Your task to perform on an android device: Open sound settings Image 0: 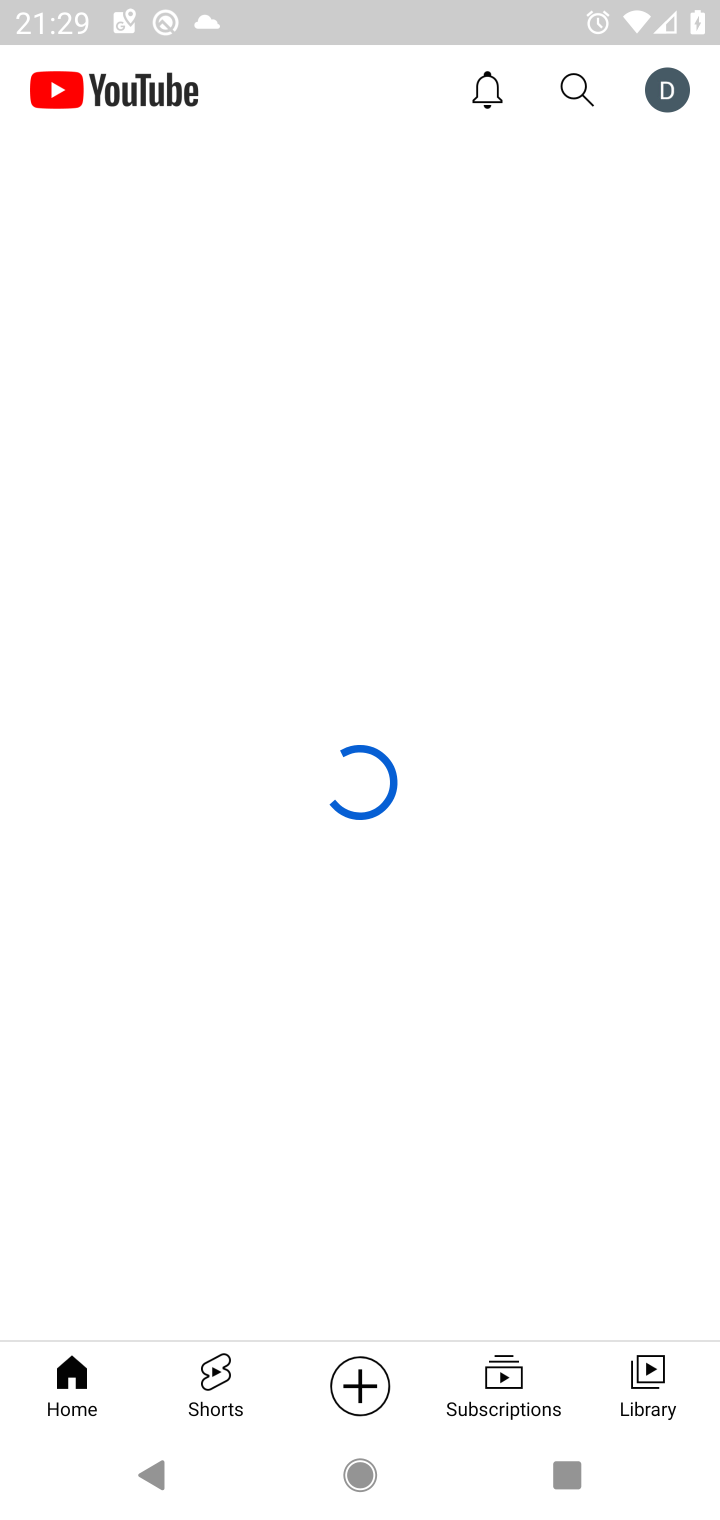
Step 0: press home button
Your task to perform on an android device: Open sound settings Image 1: 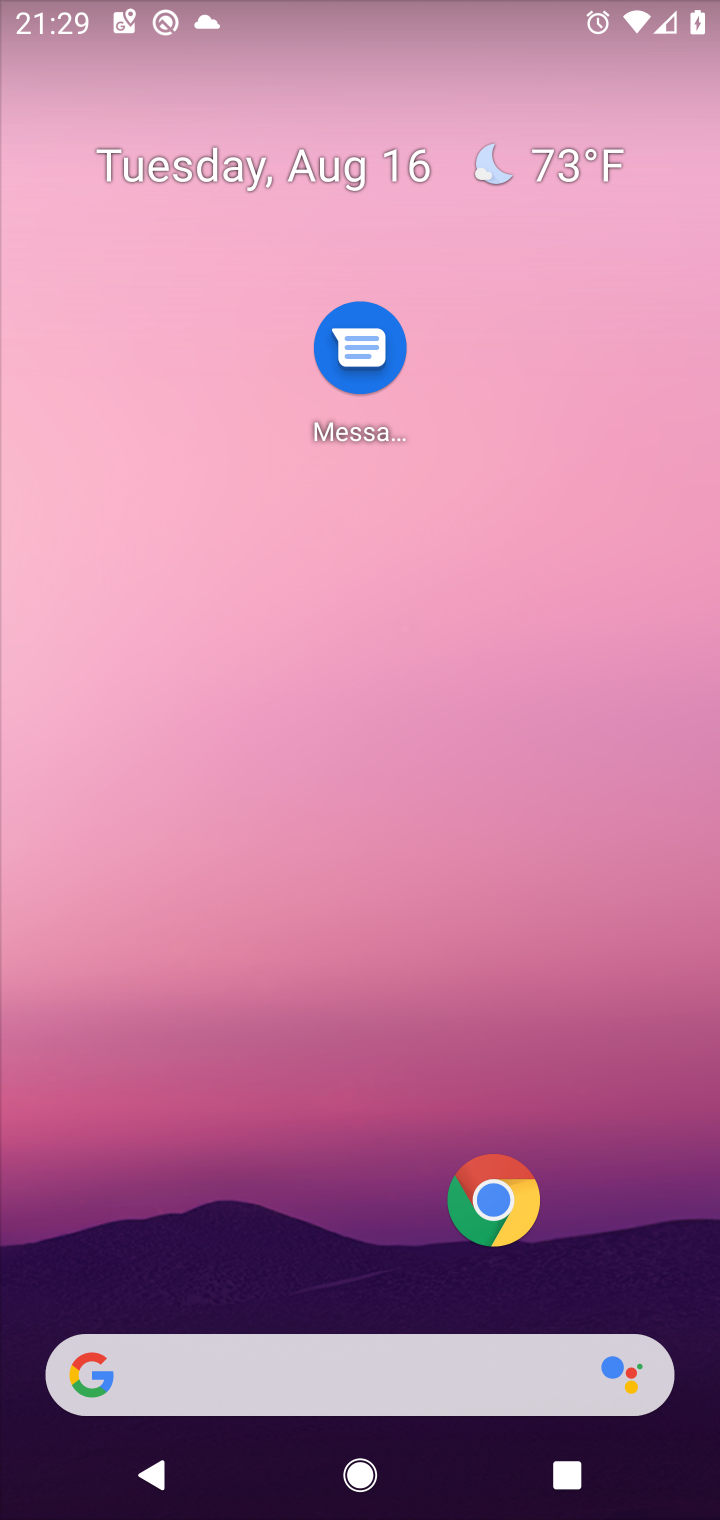
Step 1: drag from (73, 1479) to (328, 1039)
Your task to perform on an android device: Open sound settings Image 2: 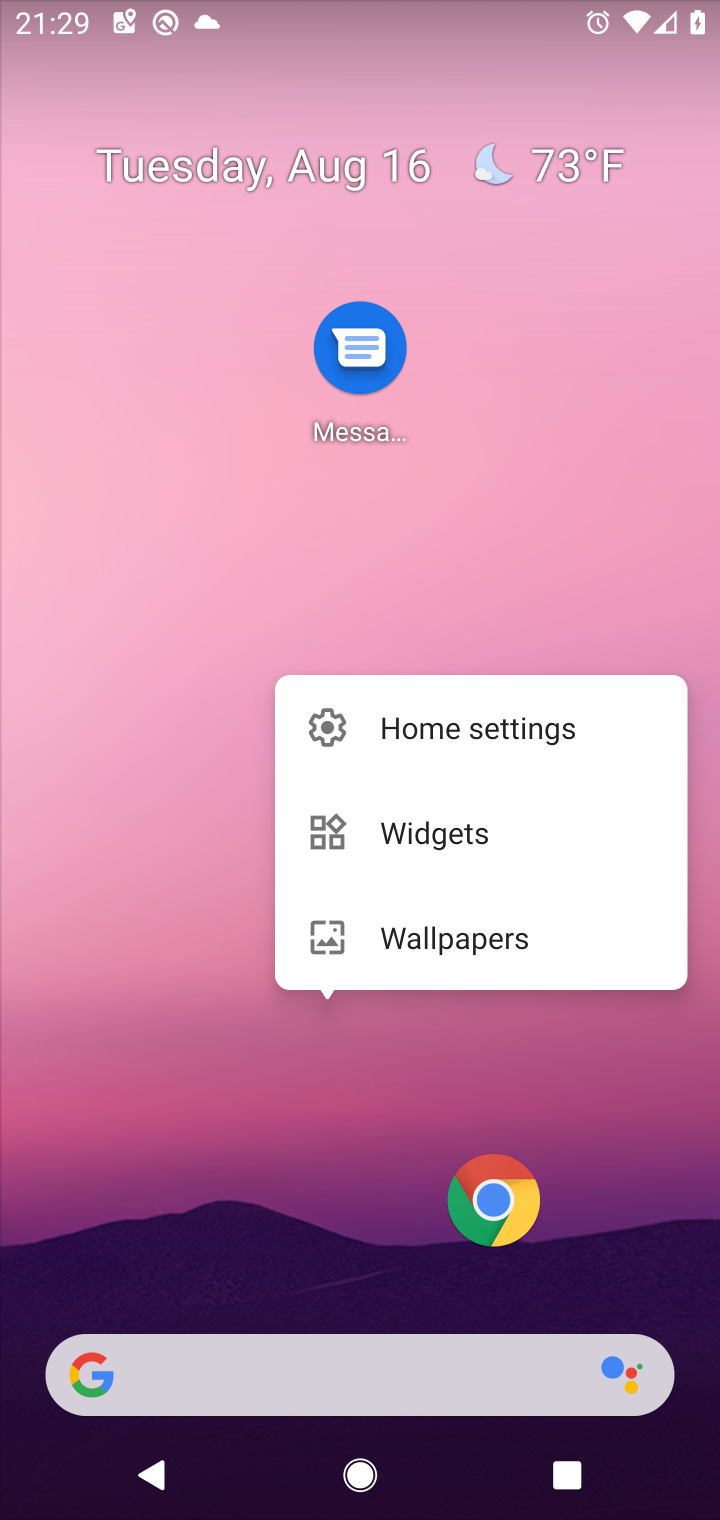
Step 2: drag from (50, 1457) to (79, 231)
Your task to perform on an android device: Open sound settings Image 3: 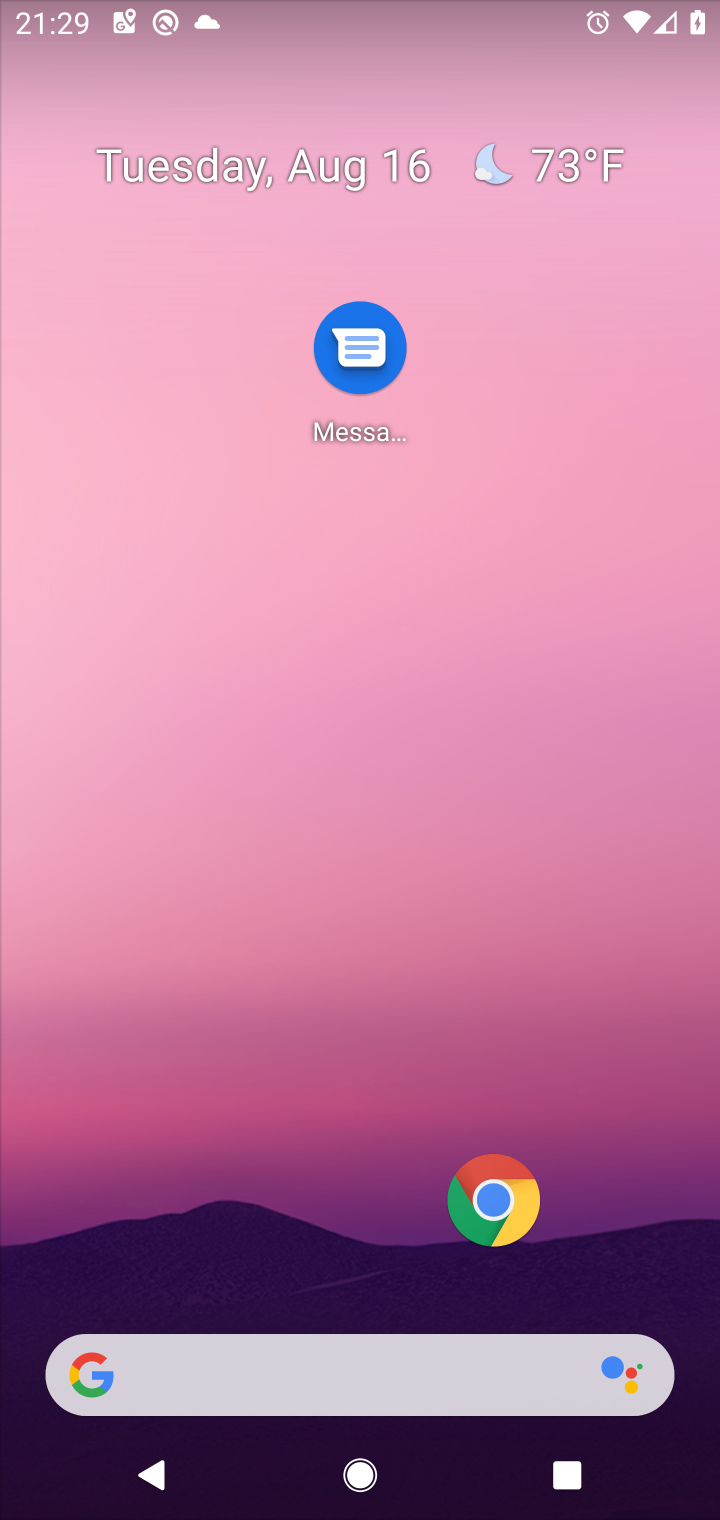
Step 3: drag from (56, 1471) to (457, 321)
Your task to perform on an android device: Open sound settings Image 4: 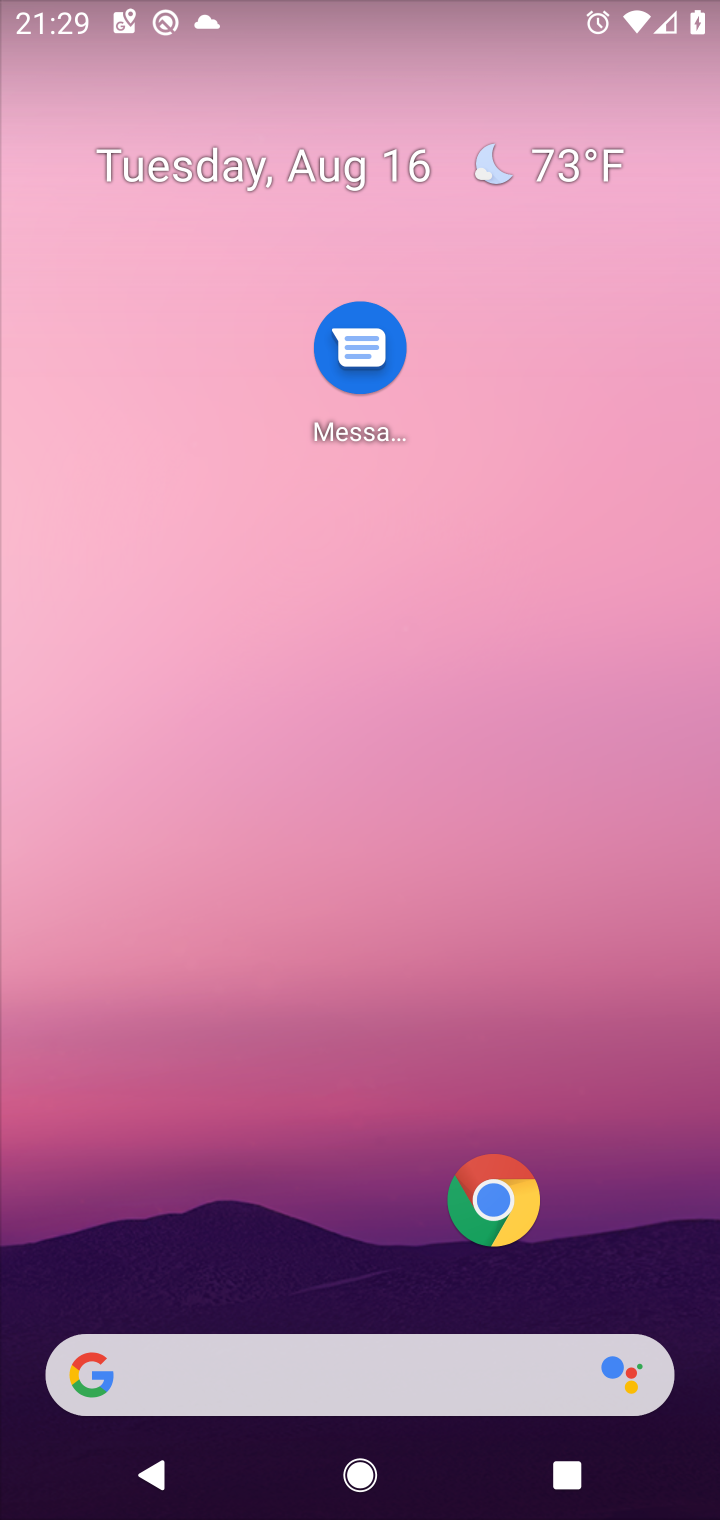
Step 4: drag from (39, 1441) to (370, 83)
Your task to perform on an android device: Open sound settings Image 5: 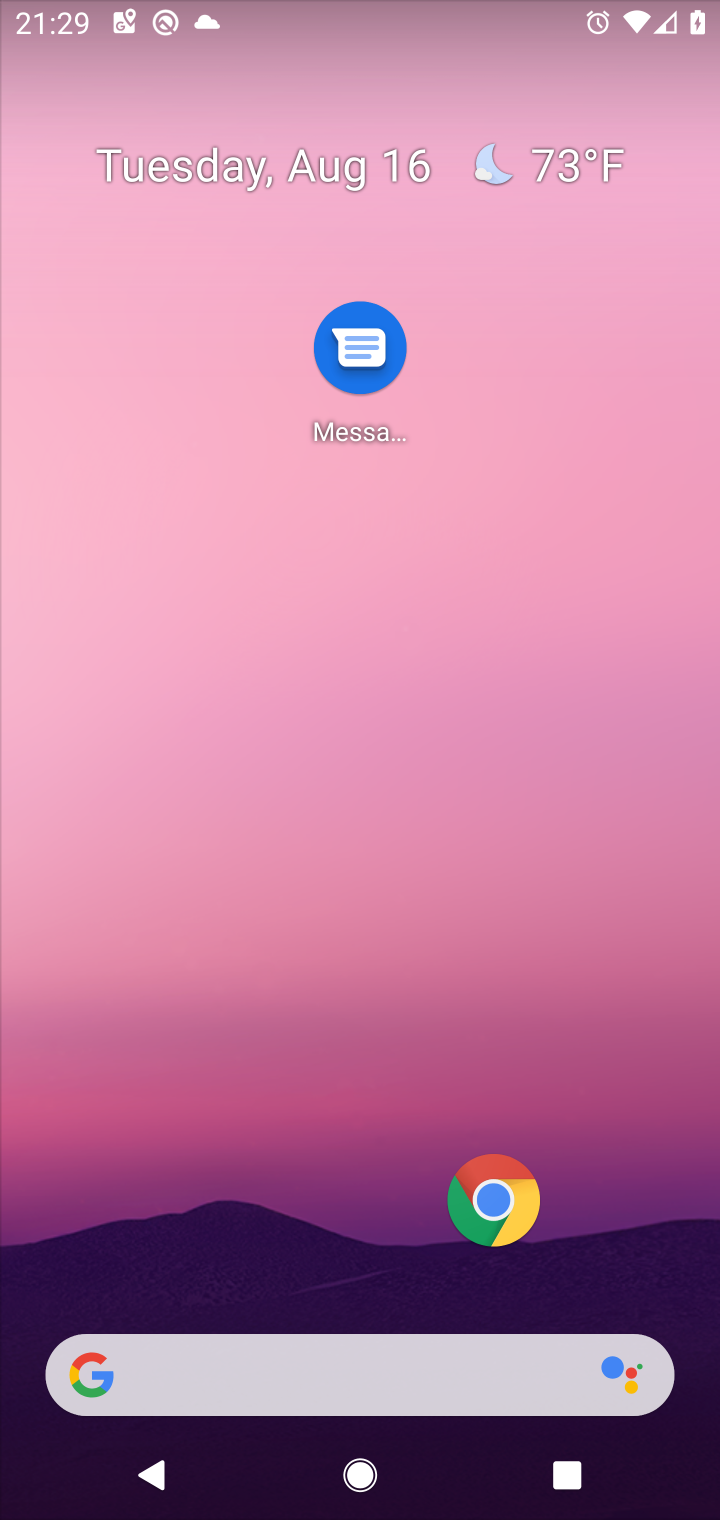
Step 5: drag from (110, 1459) to (302, 494)
Your task to perform on an android device: Open sound settings Image 6: 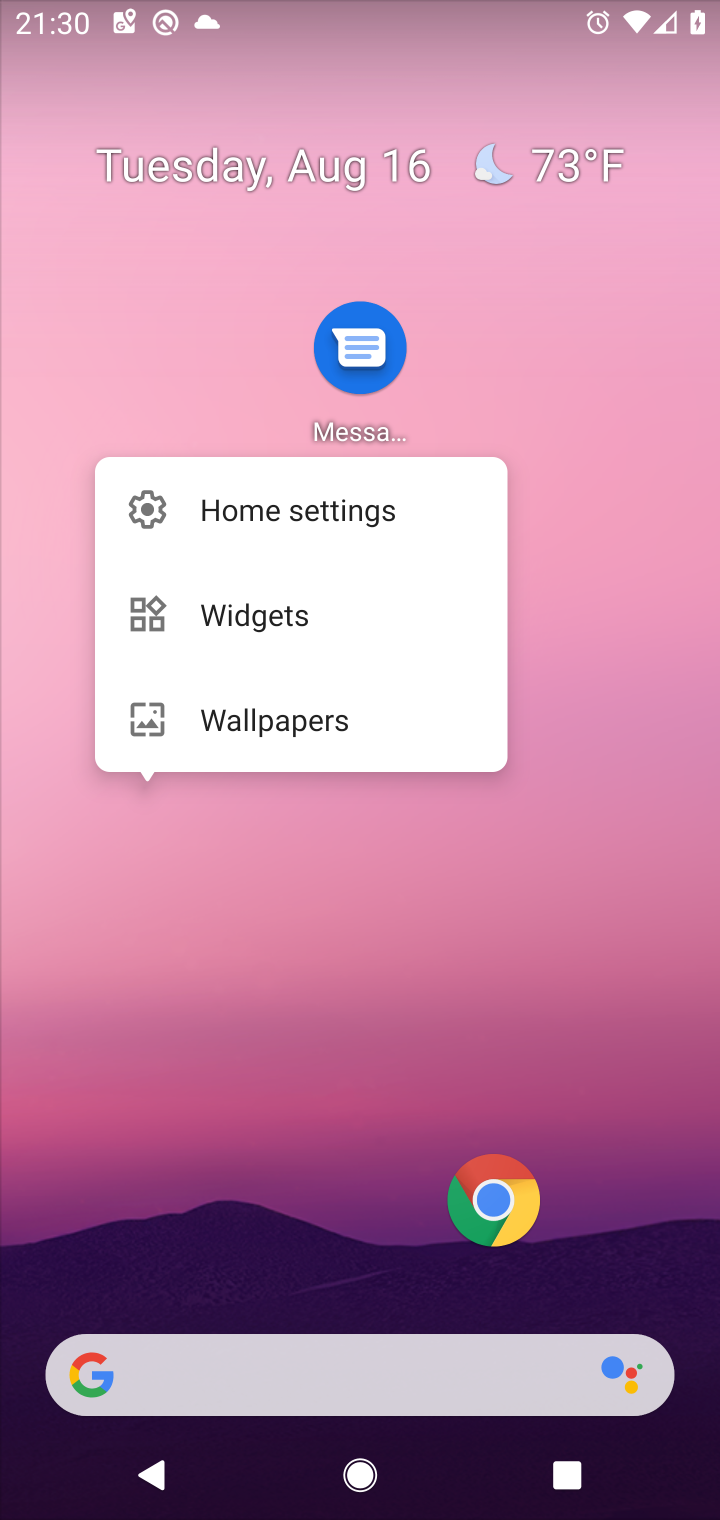
Step 6: drag from (34, 1470) to (139, 447)
Your task to perform on an android device: Open sound settings Image 7: 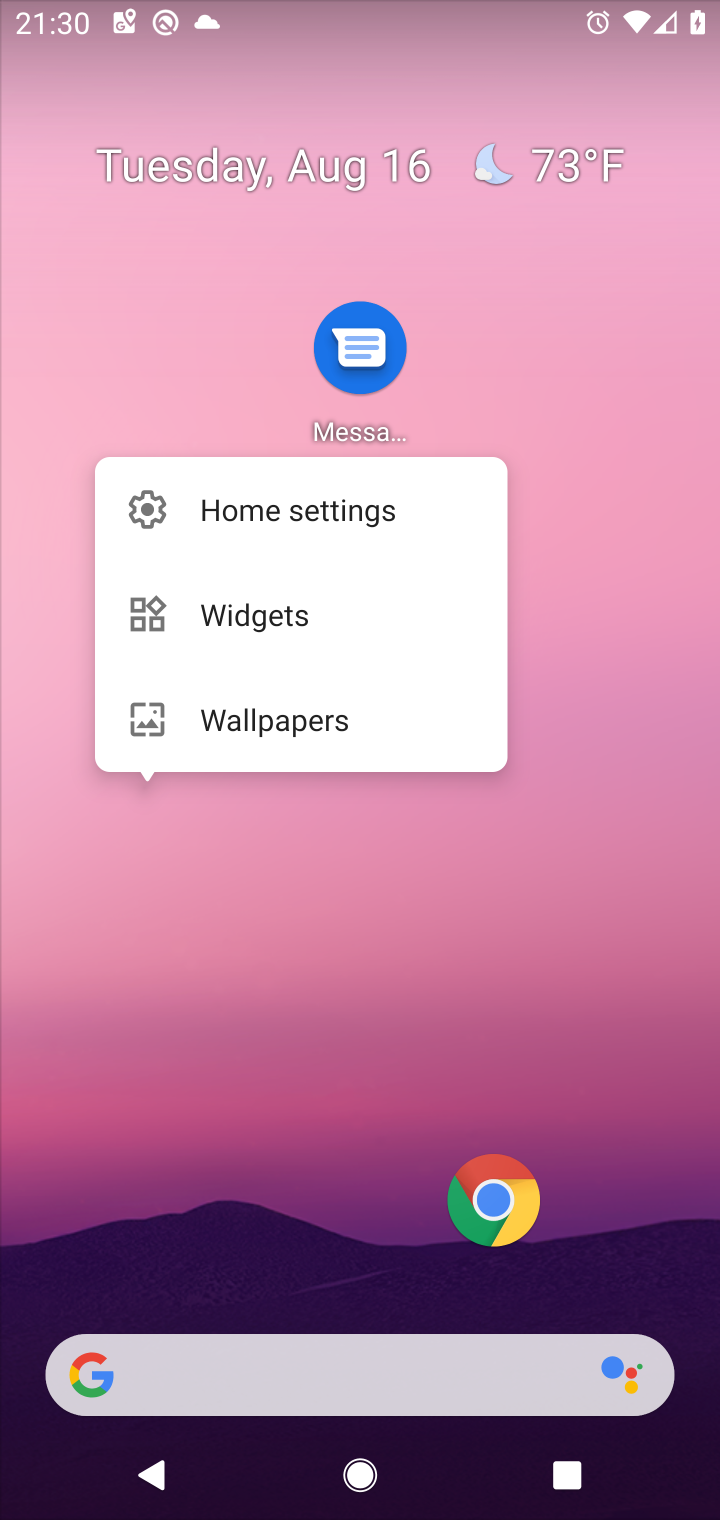
Step 7: drag from (45, 1429) to (35, 705)
Your task to perform on an android device: Open sound settings Image 8: 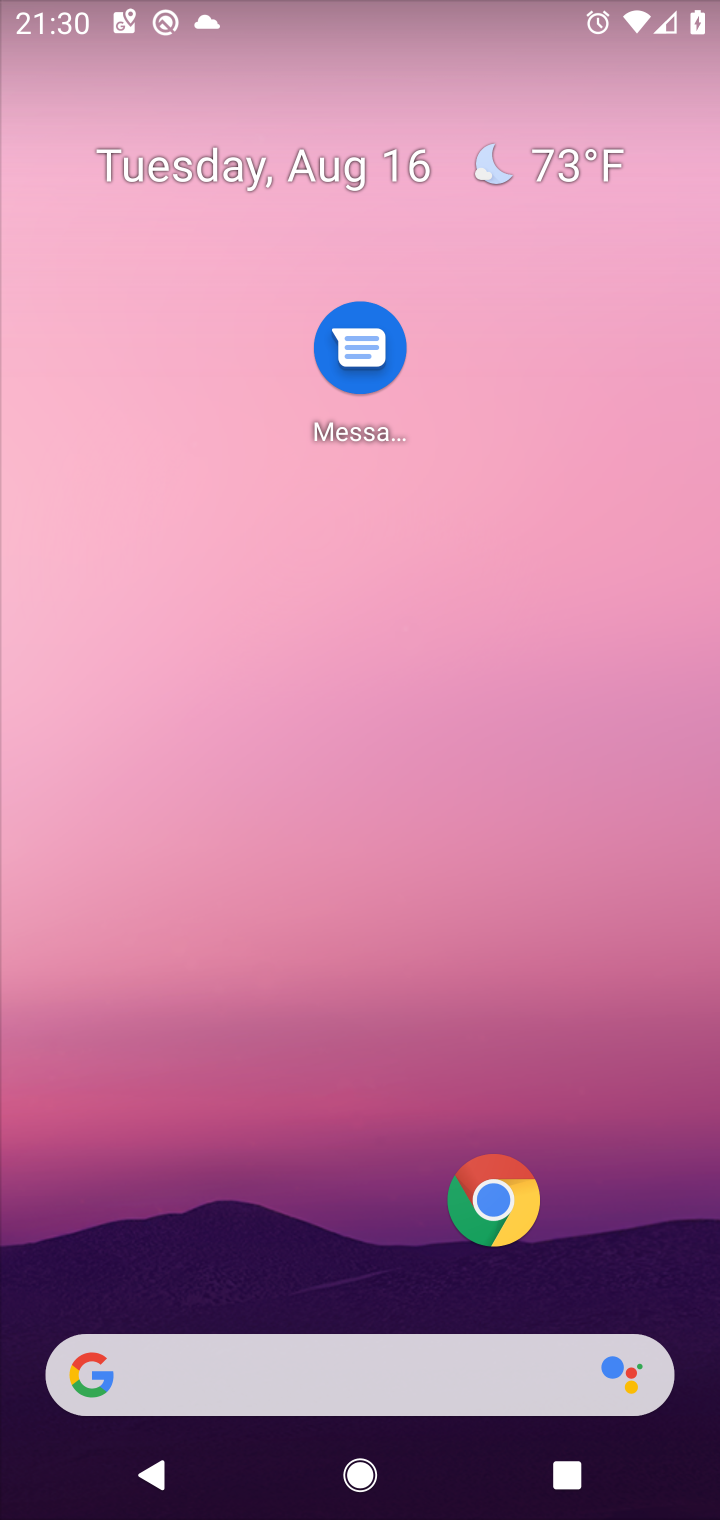
Step 8: drag from (45, 1456) to (235, 798)
Your task to perform on an android device: Open sound settings Image 9: 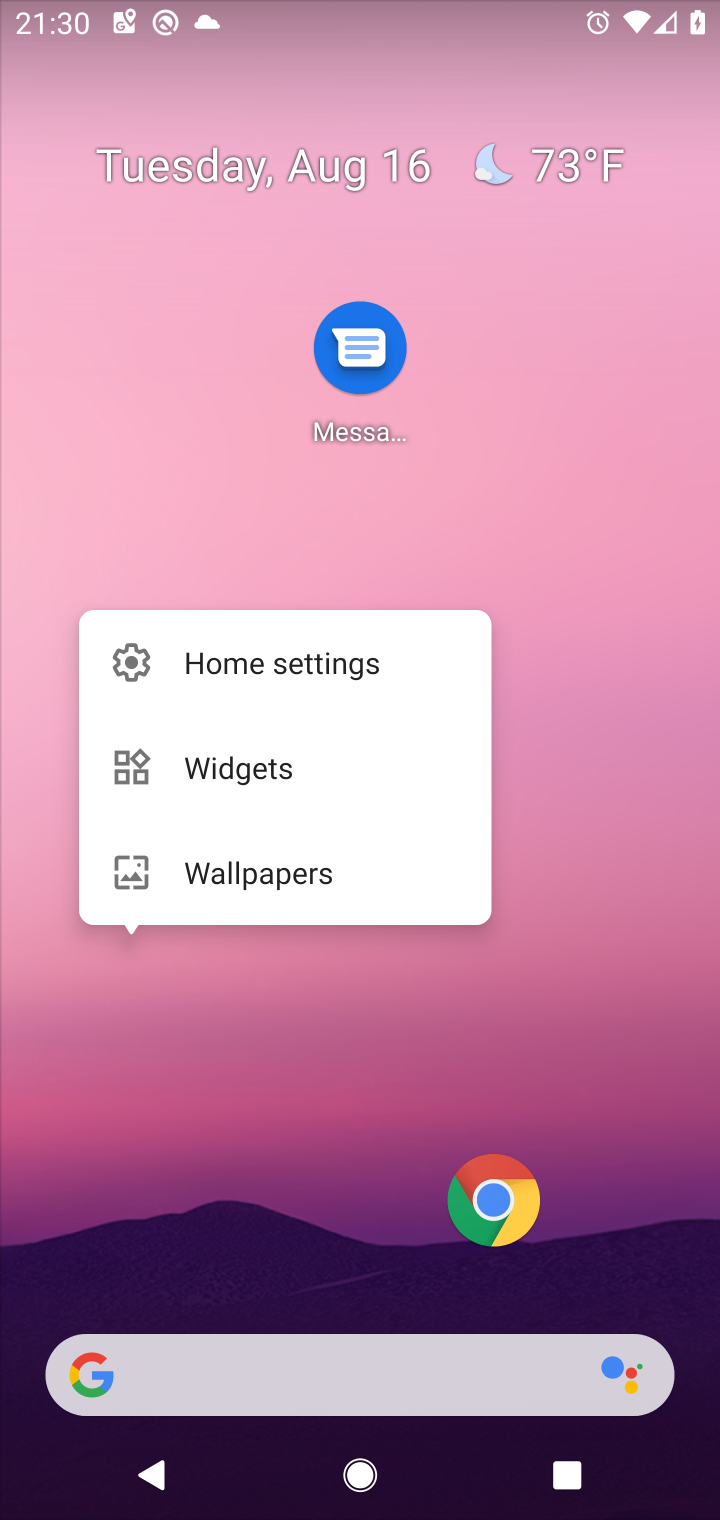
Step 9: click (47, 1464)
Your task to perform on an android device: Open sound settings Image 10: 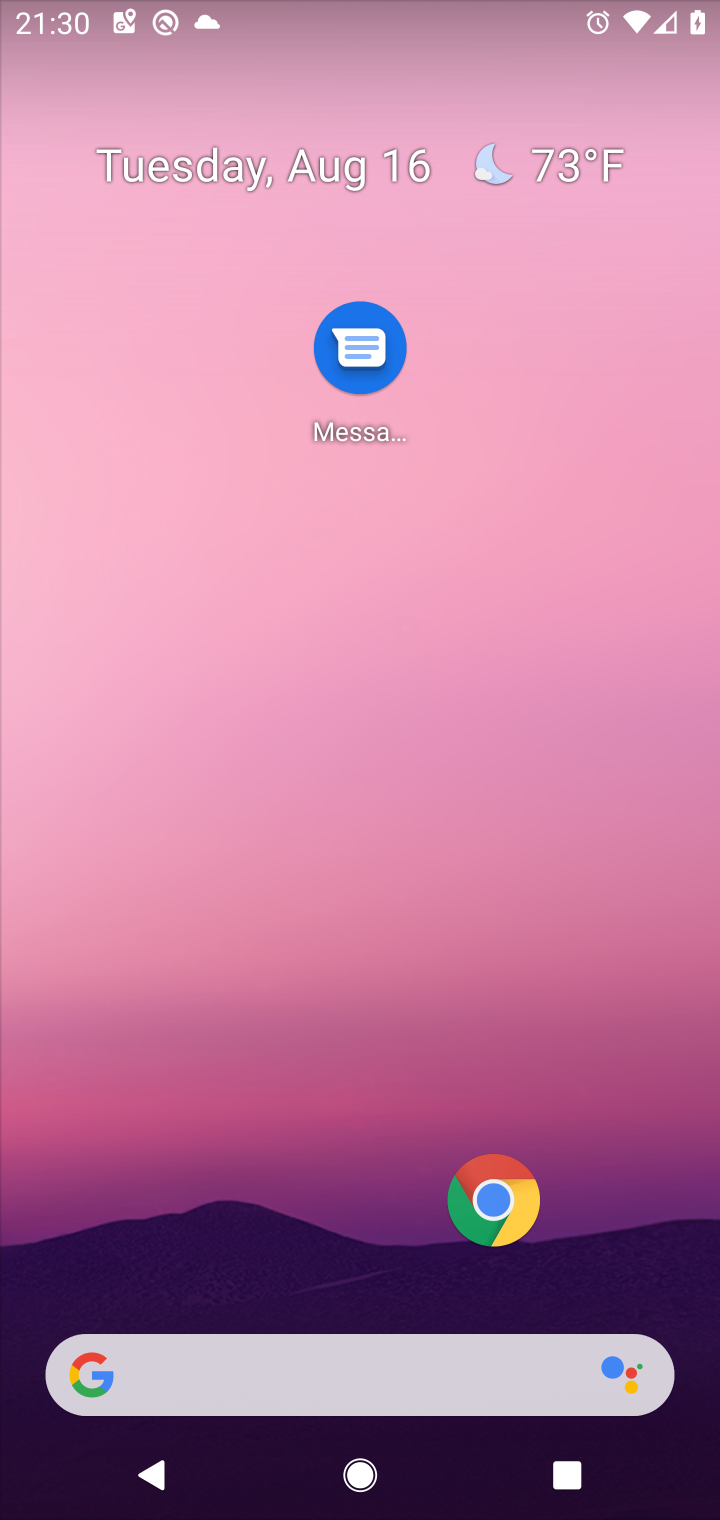
Step 10: drag from (82, 1338) to (227, 329)
Your task to perform on an android device: Open sound settings Image 11: 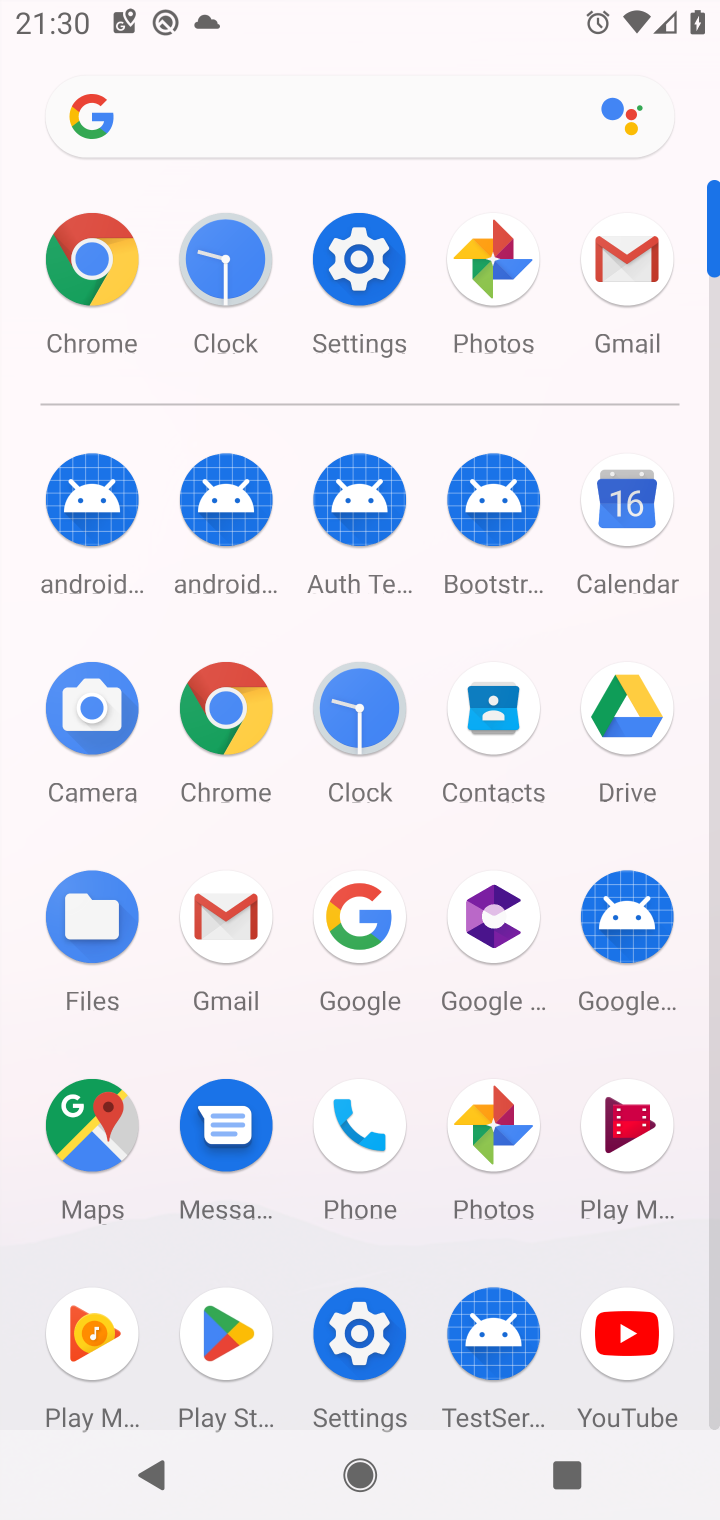
Step 11: click (362, 1323)
Your task to perform on an android device: Open sound settings Image 12: 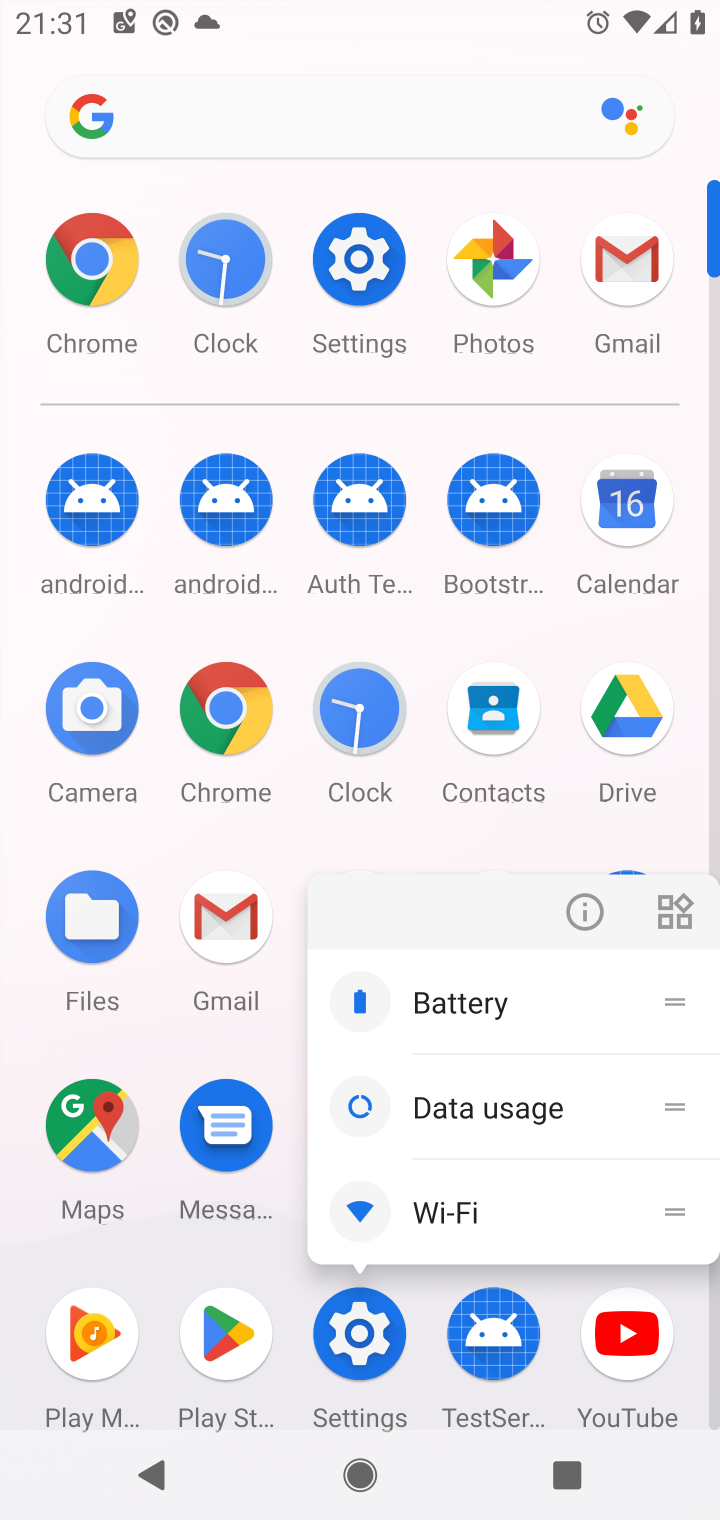
Step 12: click (370, 1355)
Your task to perform on an android device: Open sound settings Image 13: 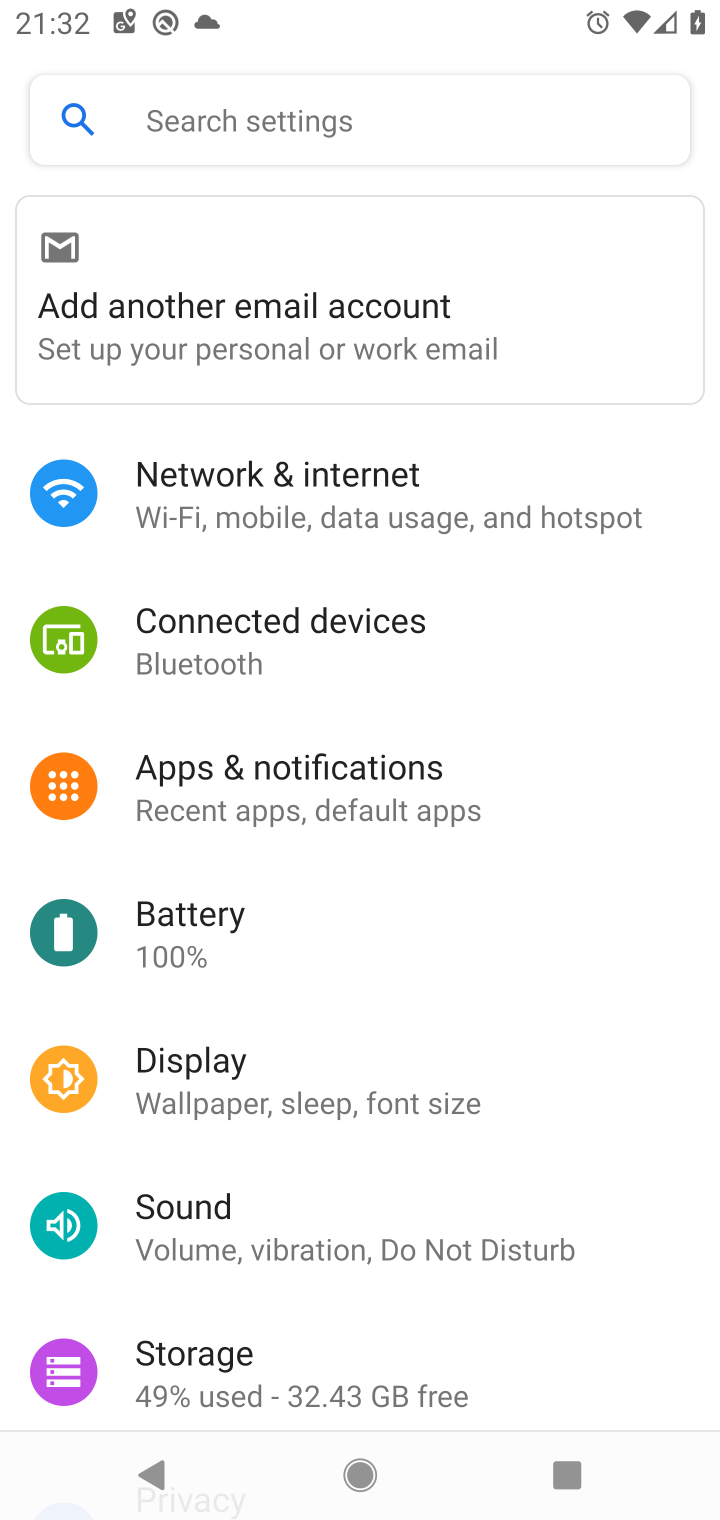
Step 13: click (256, 1229)
Your task to perform on an android device: Open sound settings Image 14: 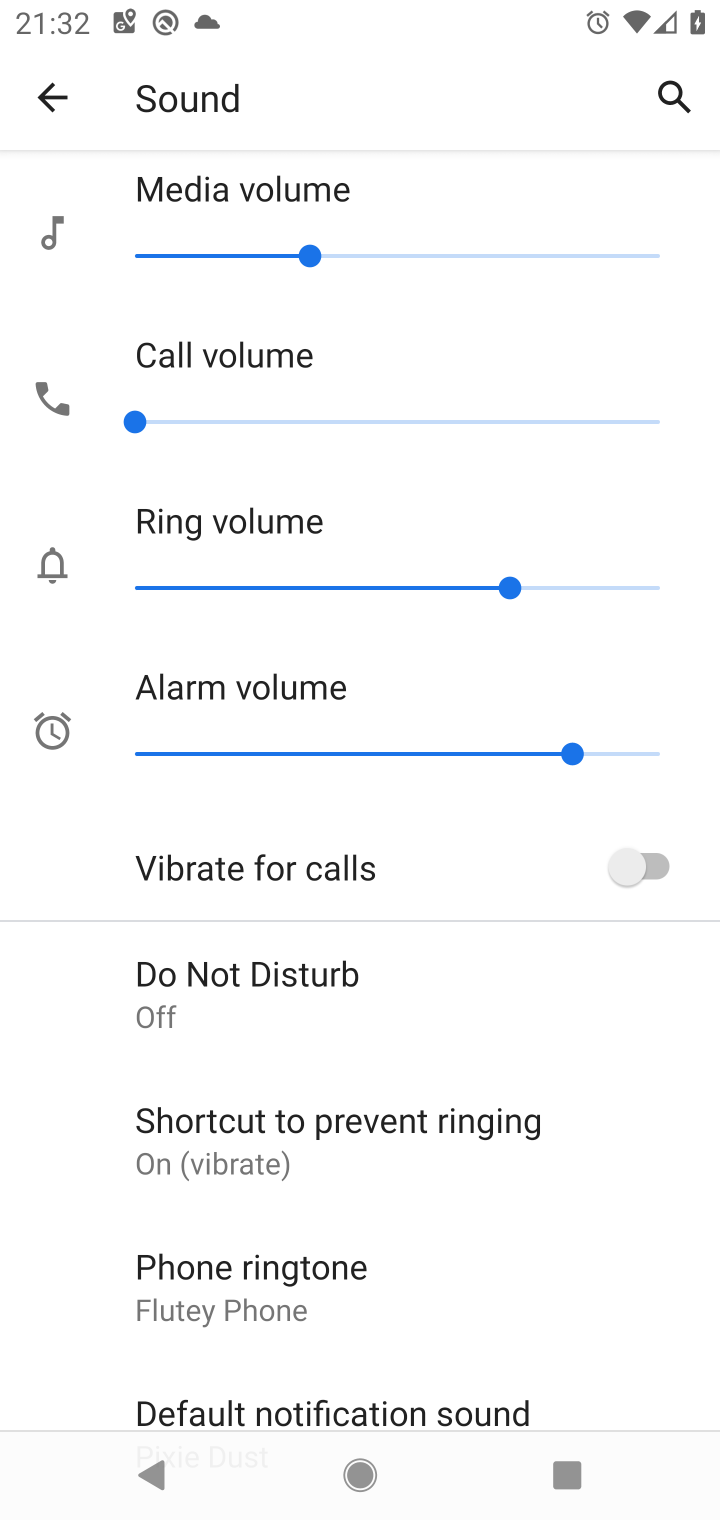
Step 14: task complete